Your task to perform on an android device: set default search engine in the chrome app Image 0: 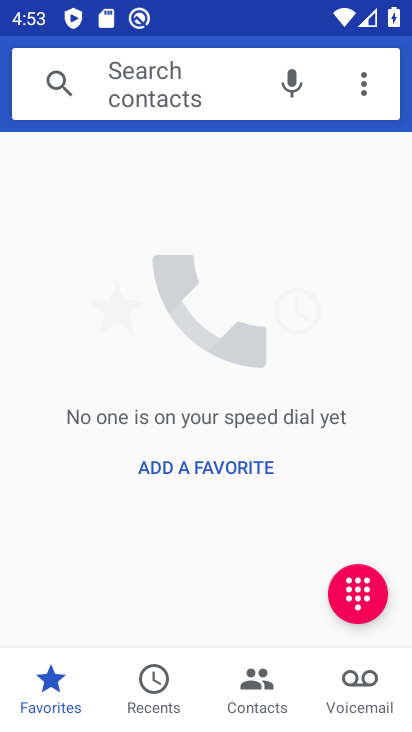
Step 0: press home button
Your task to perform on an android device: set default search engine in the chrome app Image 1: 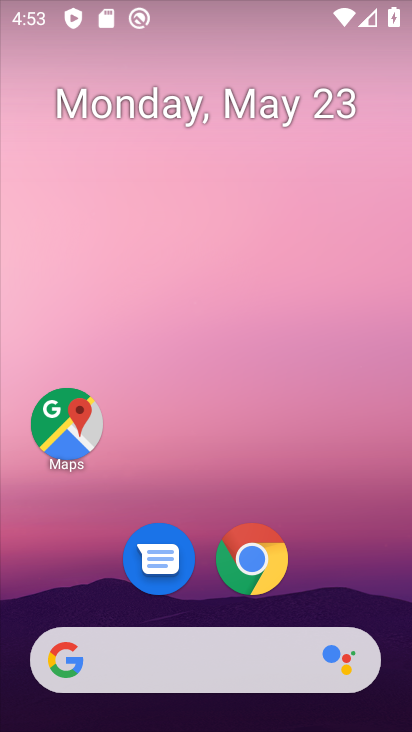
Step 1: drag from (220, 658) to (172, 41)
Your task to perform on an android device: set default search engine in the chrome app Image 2: 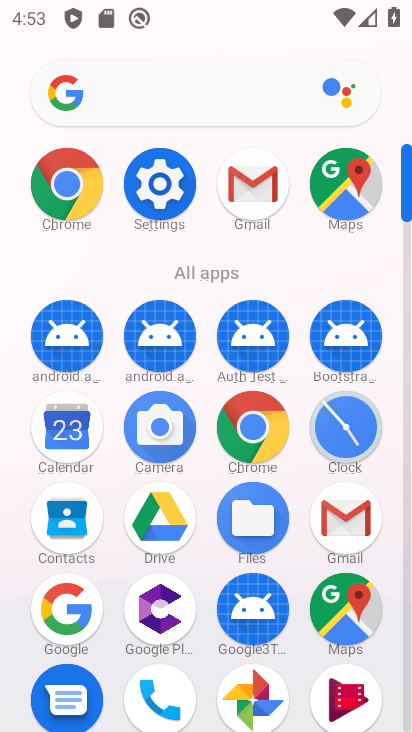
Step 2: click (262, 436)
Your task to perform on an android device: set default search engine in the chrome app Image 3: 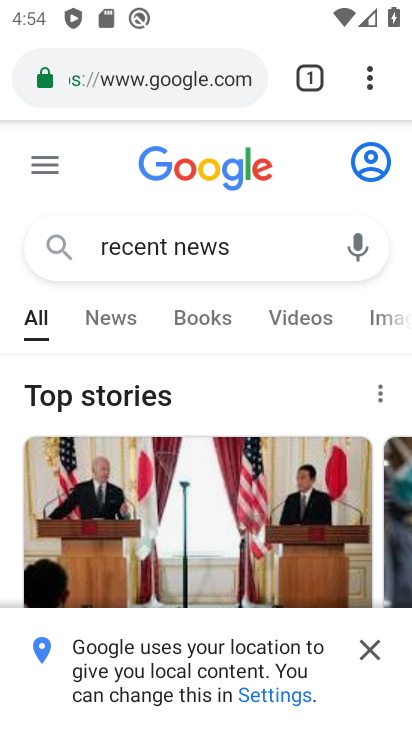
Step 3: click (367, 77)
Your task to perform on an android device: set default search engine in the chrome app Image 4: 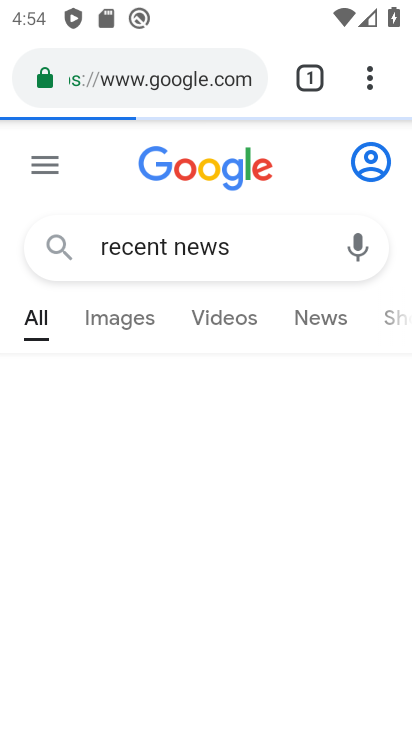
Step 4: drag from (371, 70) to (103, 615)
Your task to perform on an android device: set default search engine in the chrome app Image 5: 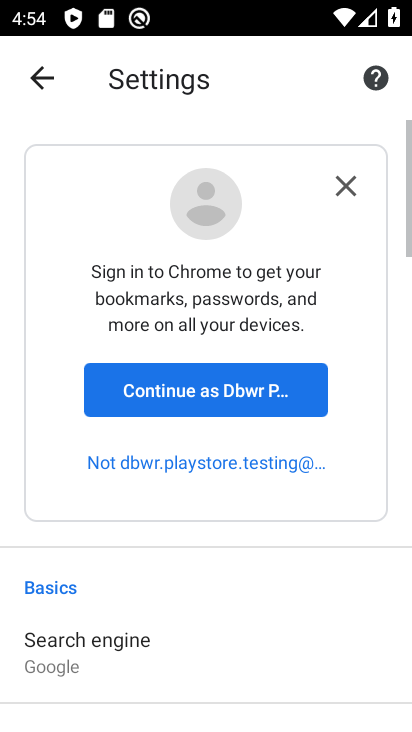
Step 5: drag from (224, 640) to (235, 161)
Your task to perform on an android device: set default search engine in the chrome app Image 6: 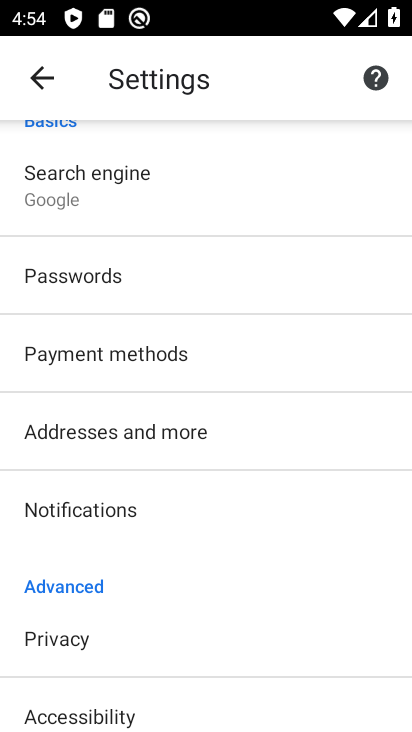
Step 6: click (199, 219)
Your task to perform on an android device: set default search engine in the chrome app Image 7: 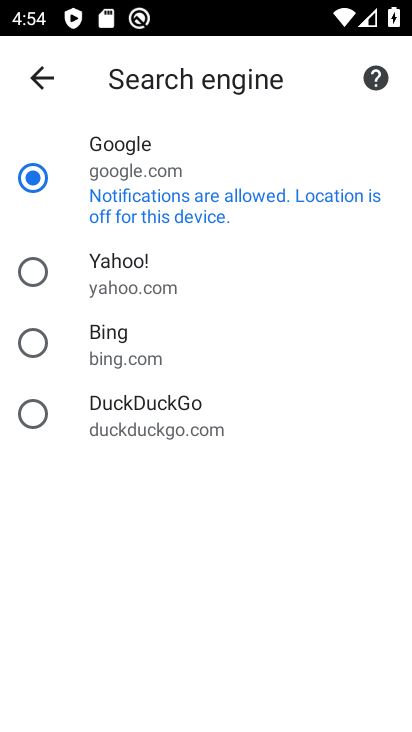
Step 7: task complete